Your task to perform on an android device: see tabs open on other devices in the chrome app Image 0: 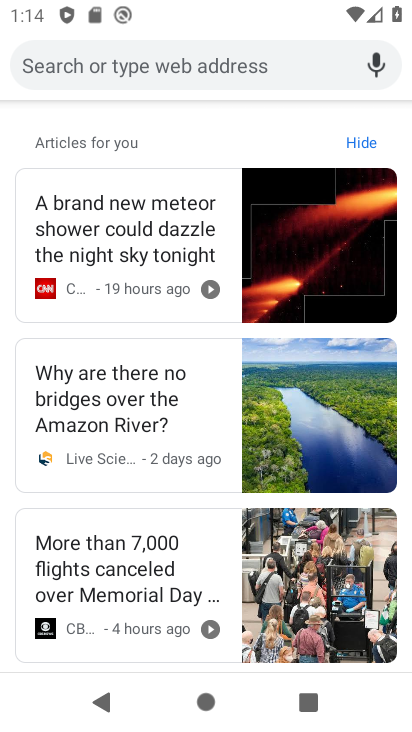
Step 0: drag from (210, 229) to (205, 647)
Your task to perform on an android device: see tabs open on other devices in the chrome app Image 1: 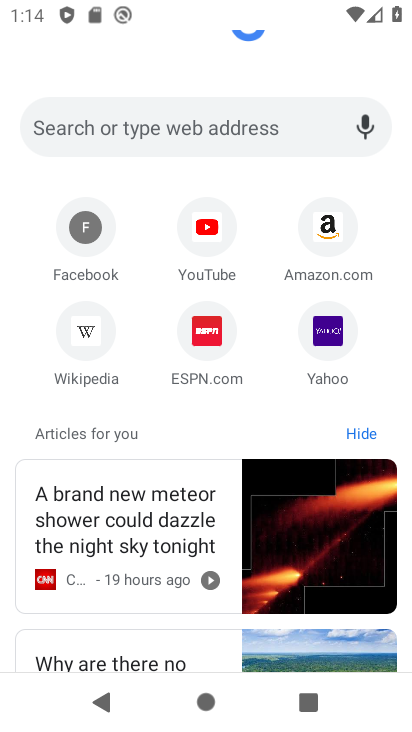
Step 1: drag from (181, 229) to (210, 610)
Your task to perform on an android device: see tabs open on other devices in the chrome app Image 2: 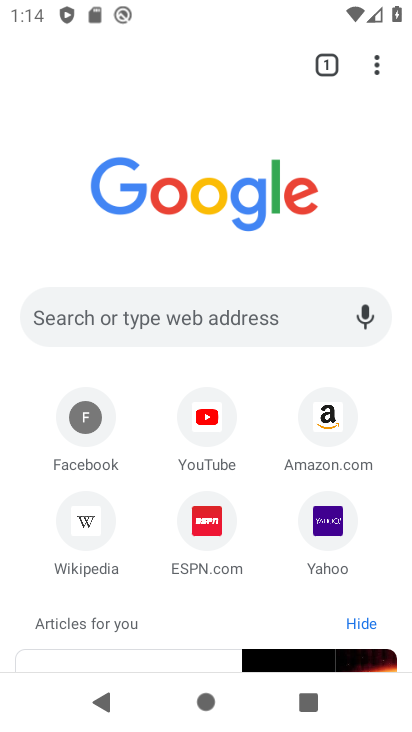
Step 2: drag from (369, 80) to (154, 313)
Your task to perform on an android device: see tabs open on other devices in the chrome app Image 3: 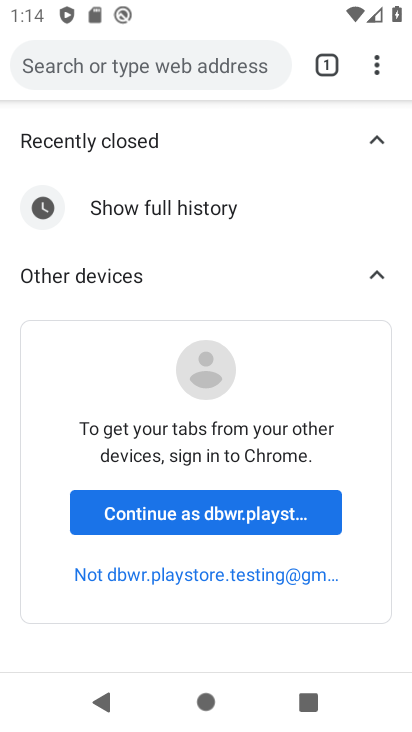
Step 3: drag from (301, 566) to (282, 369)
Your task to perform on an android device: see tabs open on other devices in the chrome app Image 4: 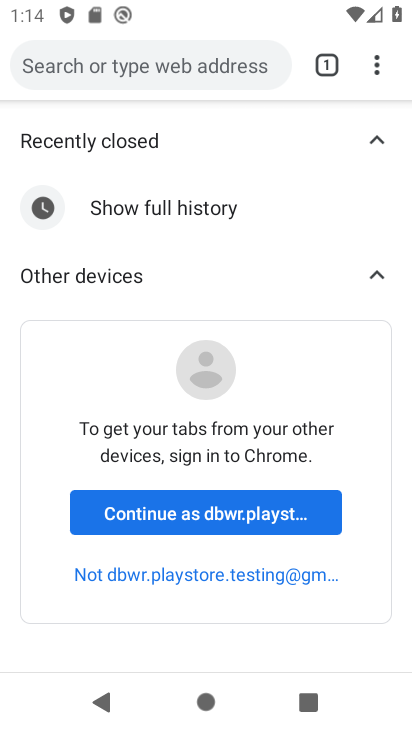
Step 4: click (197, 507)
Your task to perform on an android device: see tabs open on other devices in the chrome app Image 5: 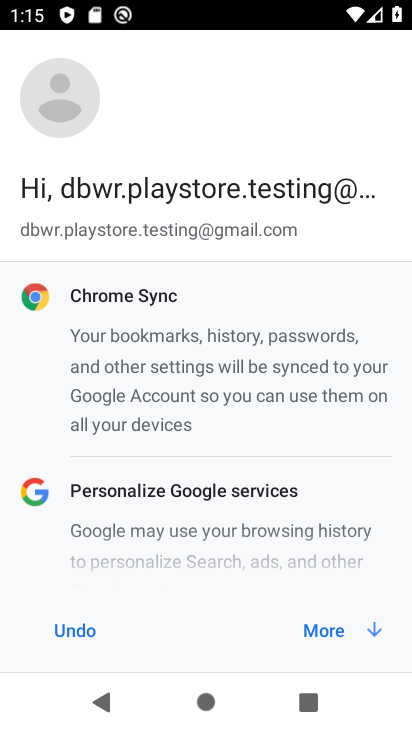
Step 5: click (333, 634)
Your task to perform on an android device: see tabs open on other devices in the chrome app Image 6: 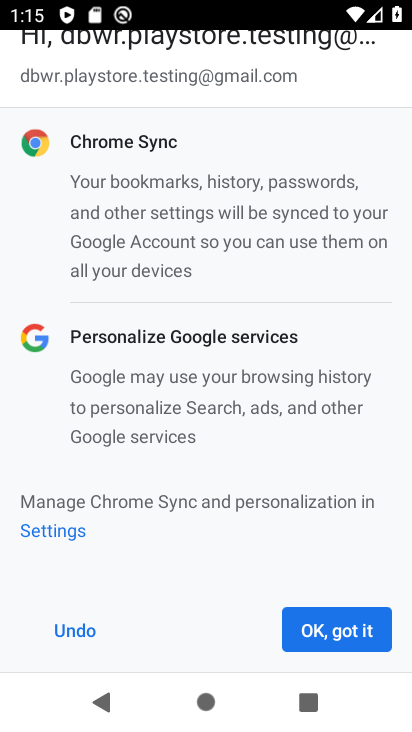
Step 6: click (344, 640)
Your task to perform on an android device: see tabs open on other devices in the chrome app Image 7: 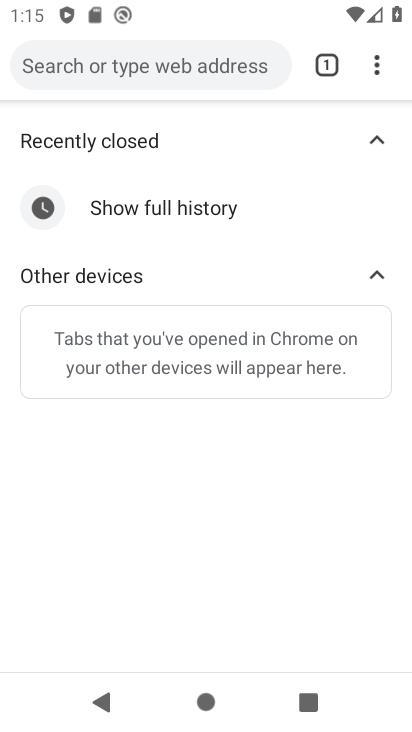
Step 7: task complete